Your task to perform on an android device: Go to location settings Image 0: 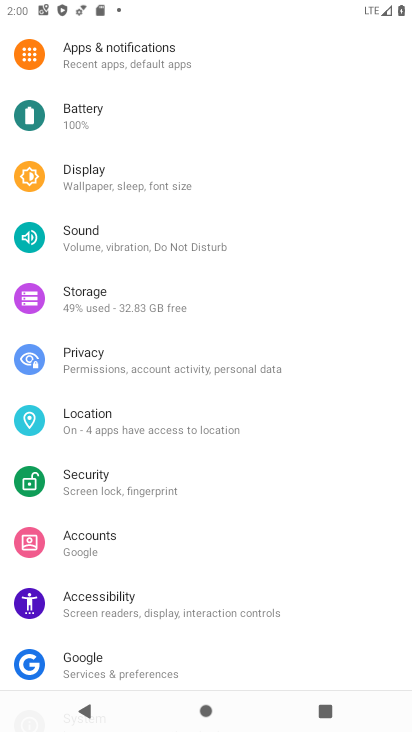
Step 0: click (173, 415)
Your task to perform on an android device: Go to location settings Image 1: 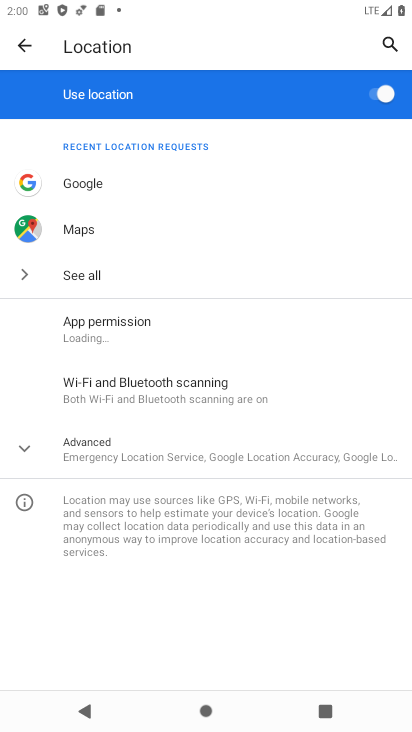
Step 1: task complete